Your task to perform on an android device: allow cookies in the chrome app Image 0: 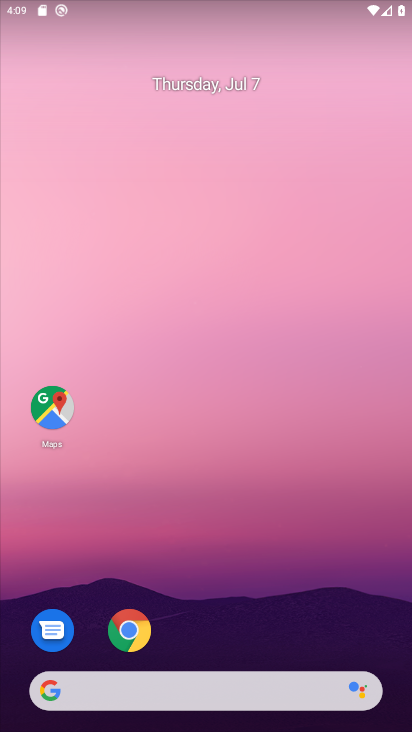
Step 0: drag from (248, 679) to (400, 8)
Your task to perform on an android device: allow cookies in the chrome app Image 1: 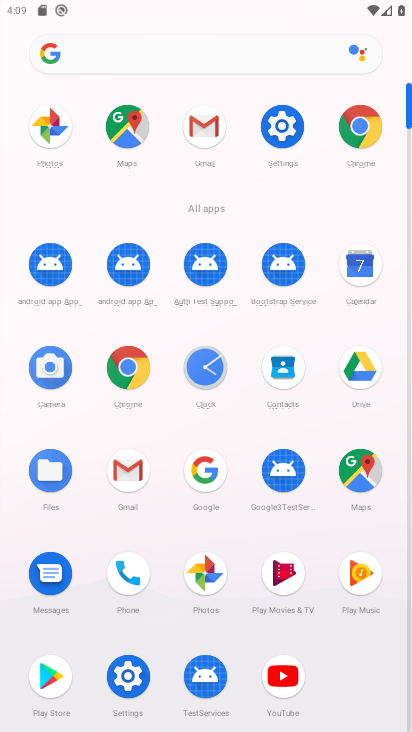
Step 1: click (126, 374)
Your task to perform on an android device: allow cookies in the chrome app Image 2: 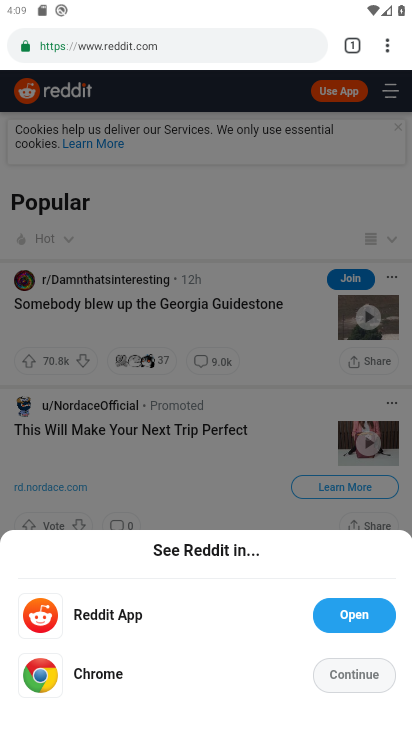
Step 2: drag from (399, 50) to (251, 546)
Your task to perform on an android device: allow cookies in the chrome app Image 3: 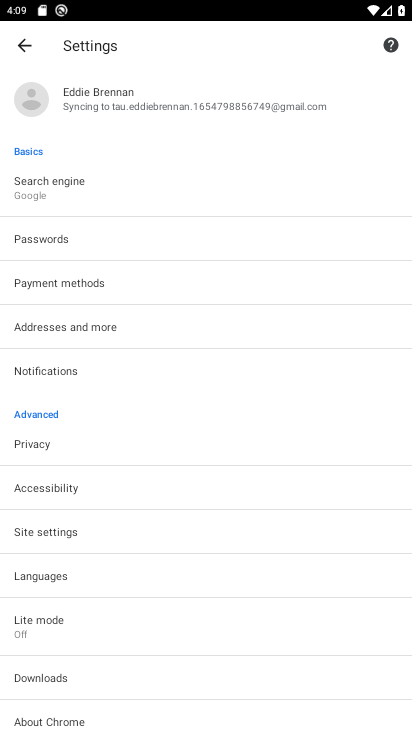
Step 3: drag from (86, 617) to (117, 506)
Your task to perform on an android device: allow cookies in the chrome app Image 4: 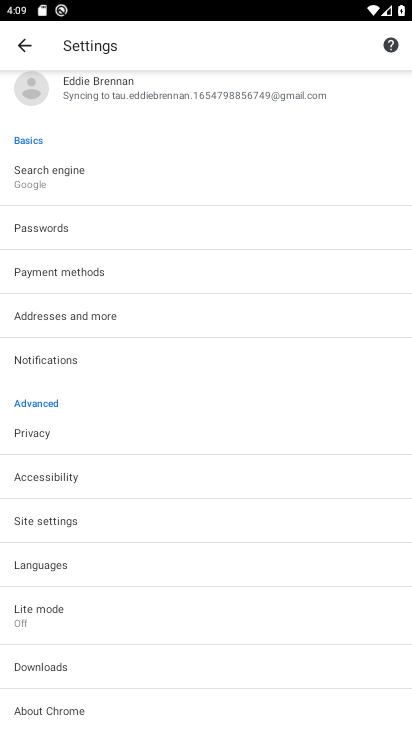
Step 4: click (85, 515)
Your task to perform on an android device: allow cookies in the chrome app Image 5: 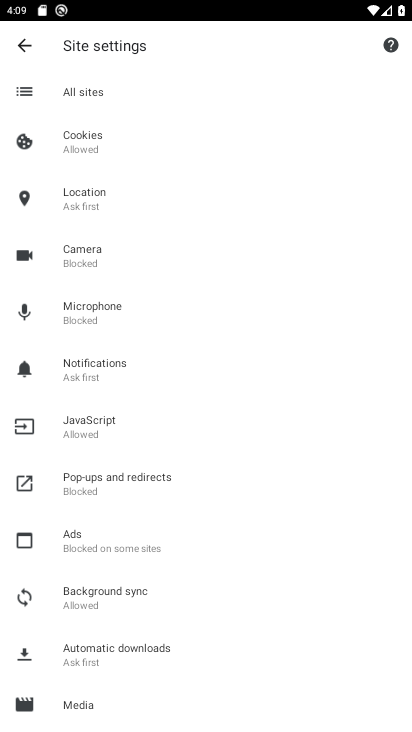
Step 5: click (109, 138)
Your task to perform on an android device: allow cookies in the chrome app Image 6: 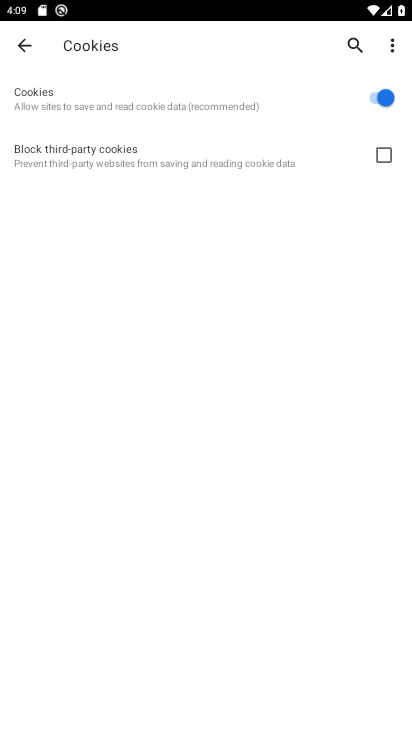
Step 6: task complete